Your task to perform on an android device: change your default location settings in chrome Image 0: 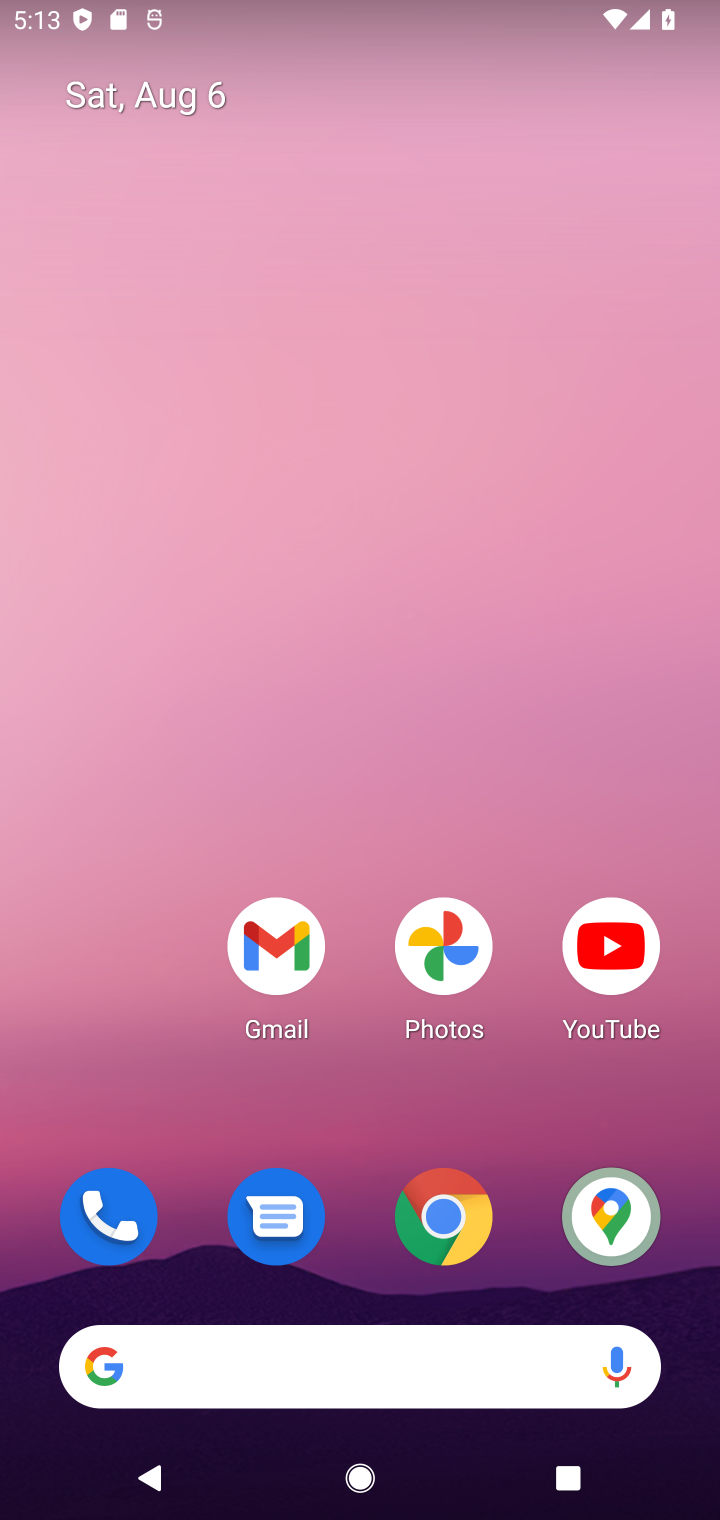
Step 0: drag from (524, 997) to (337, 437)
Your task to perform on an android device: change your default location settings in chrome Image 1: 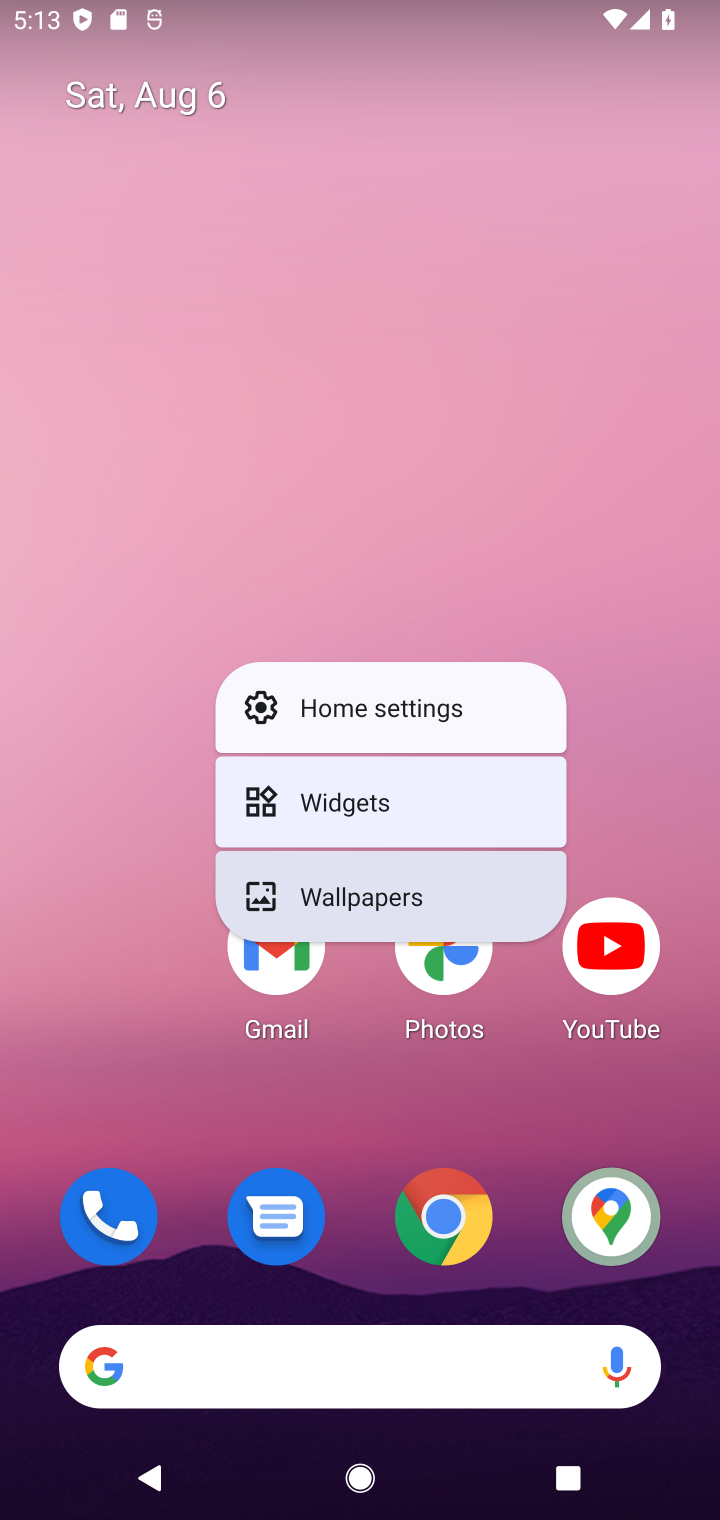
Step 1: click (288, 407)
Your task to perform on an android device: change your default location settings in chrome Image 2: 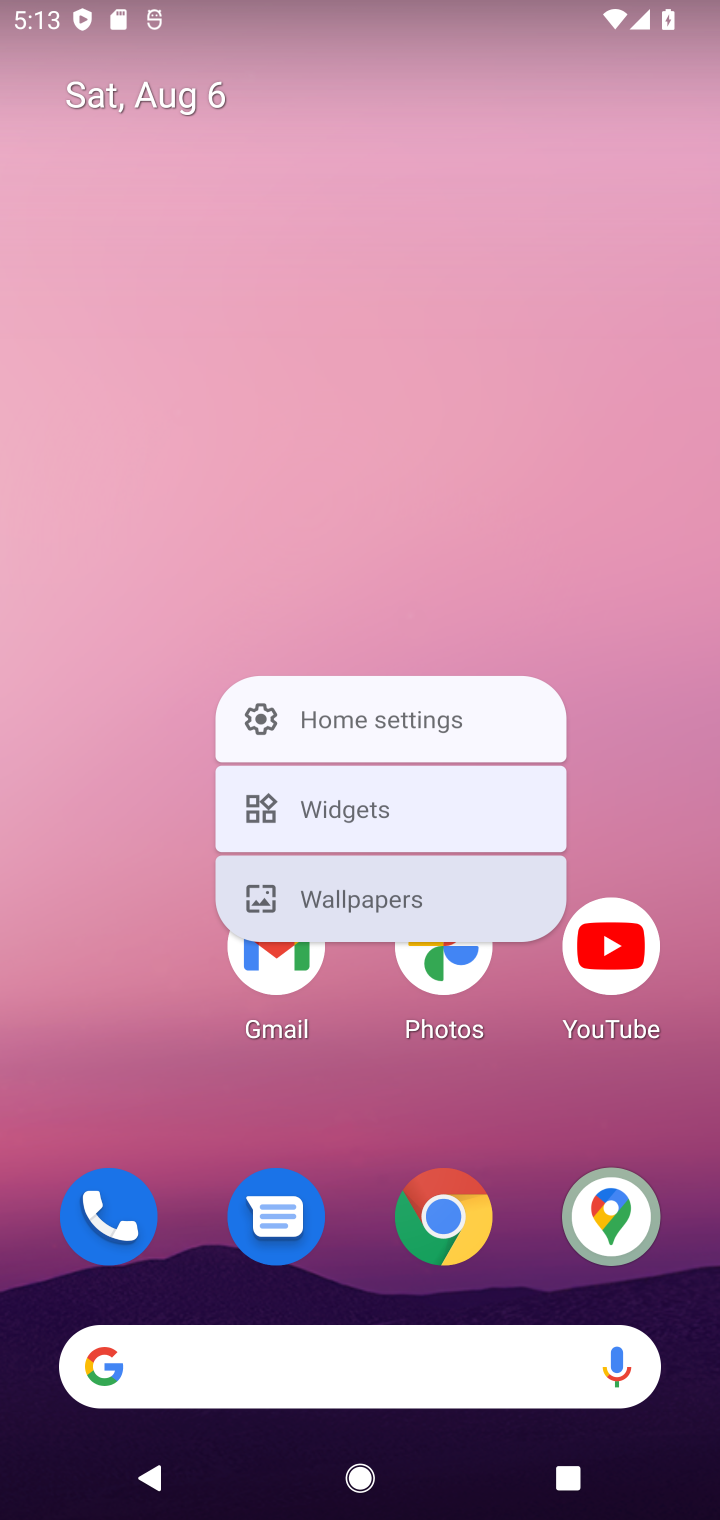
Step 2: click (286, 399)
Your task to perform on an android device: change your default location settings in chrome Image 3: 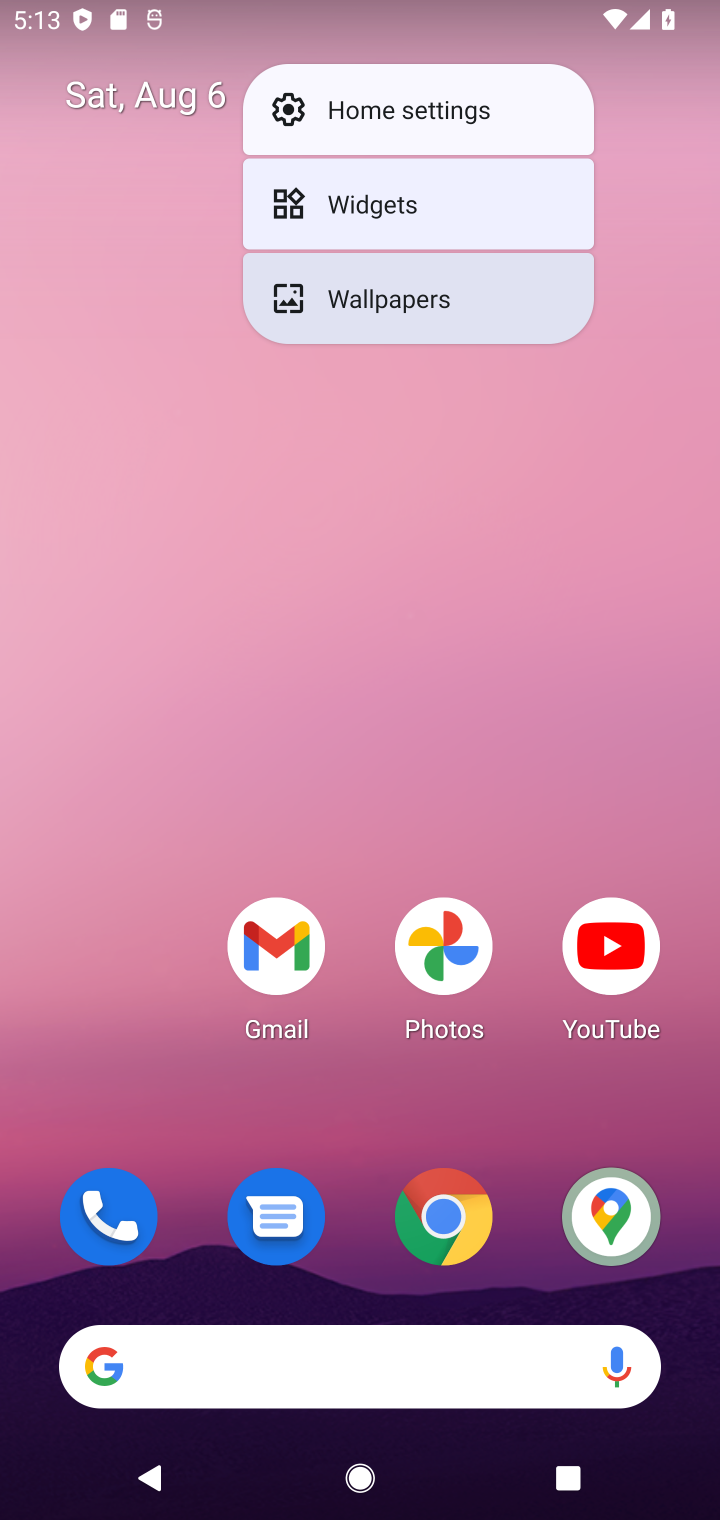
Step 3: click (187, 1036)
Your task to perform on an android device: change your default location settings in chrome Image 4: 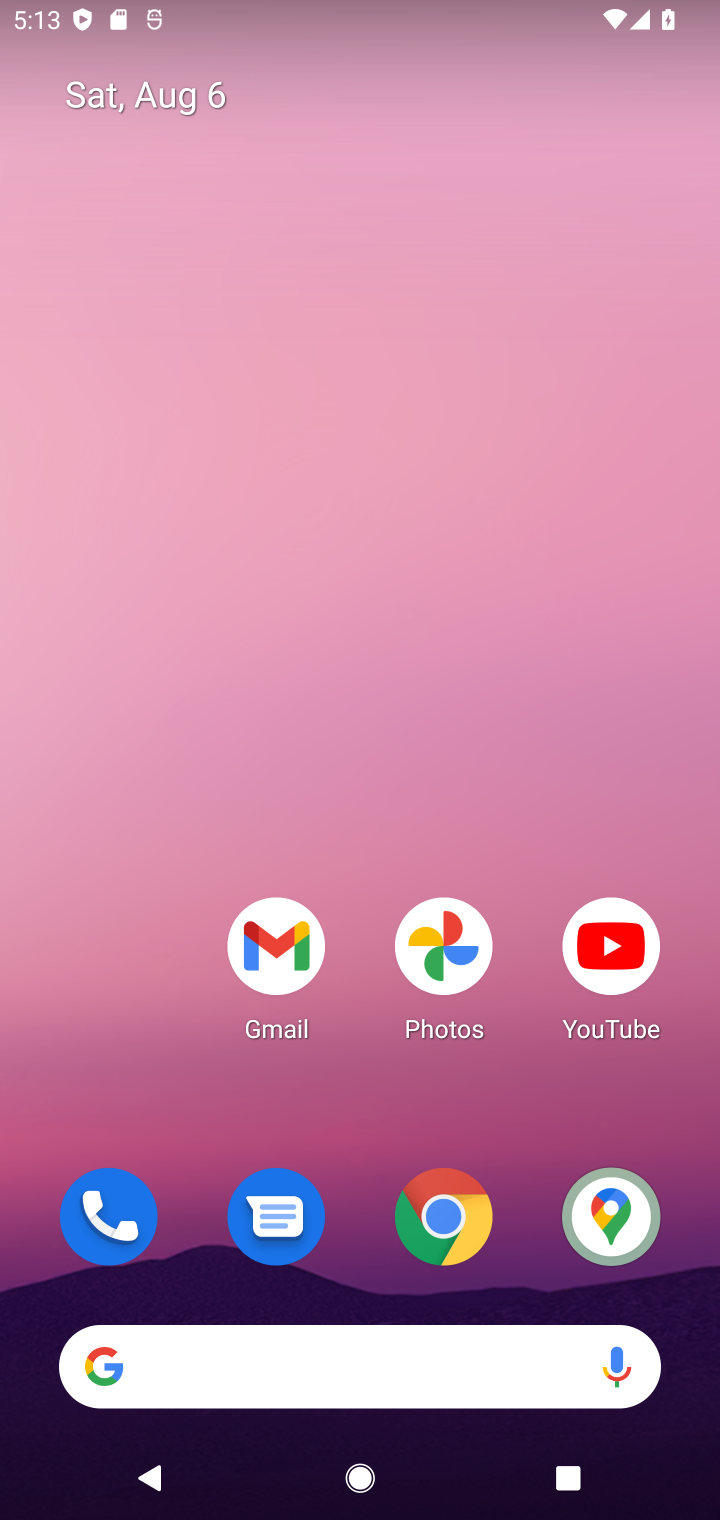
Step 4: drag from (147, 661) to (171, 44)
Your task to perform on an android device: change your default location settings in chrome Image 5: 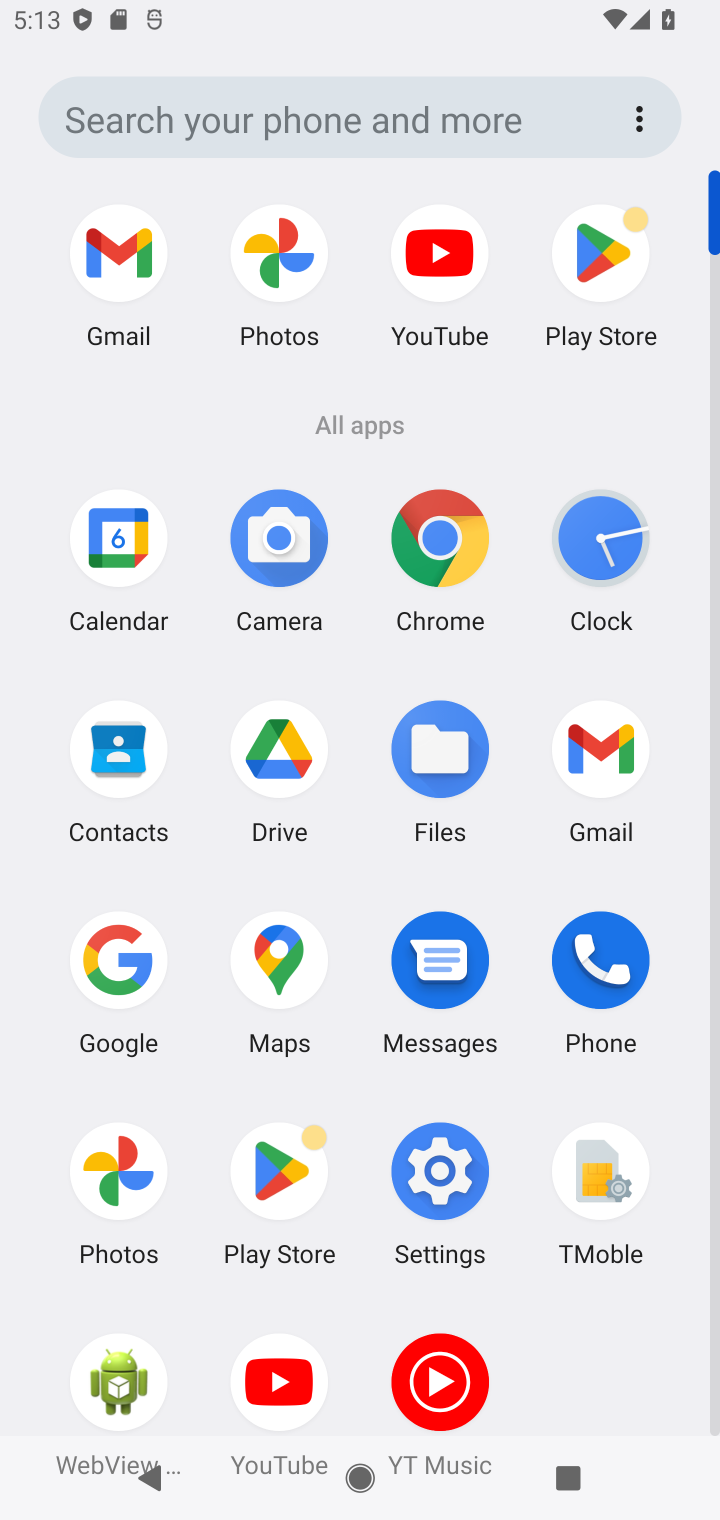
Step 5: click (440, 540)
Your task to perform on an android device: change your default location settings in chrome Image 6: 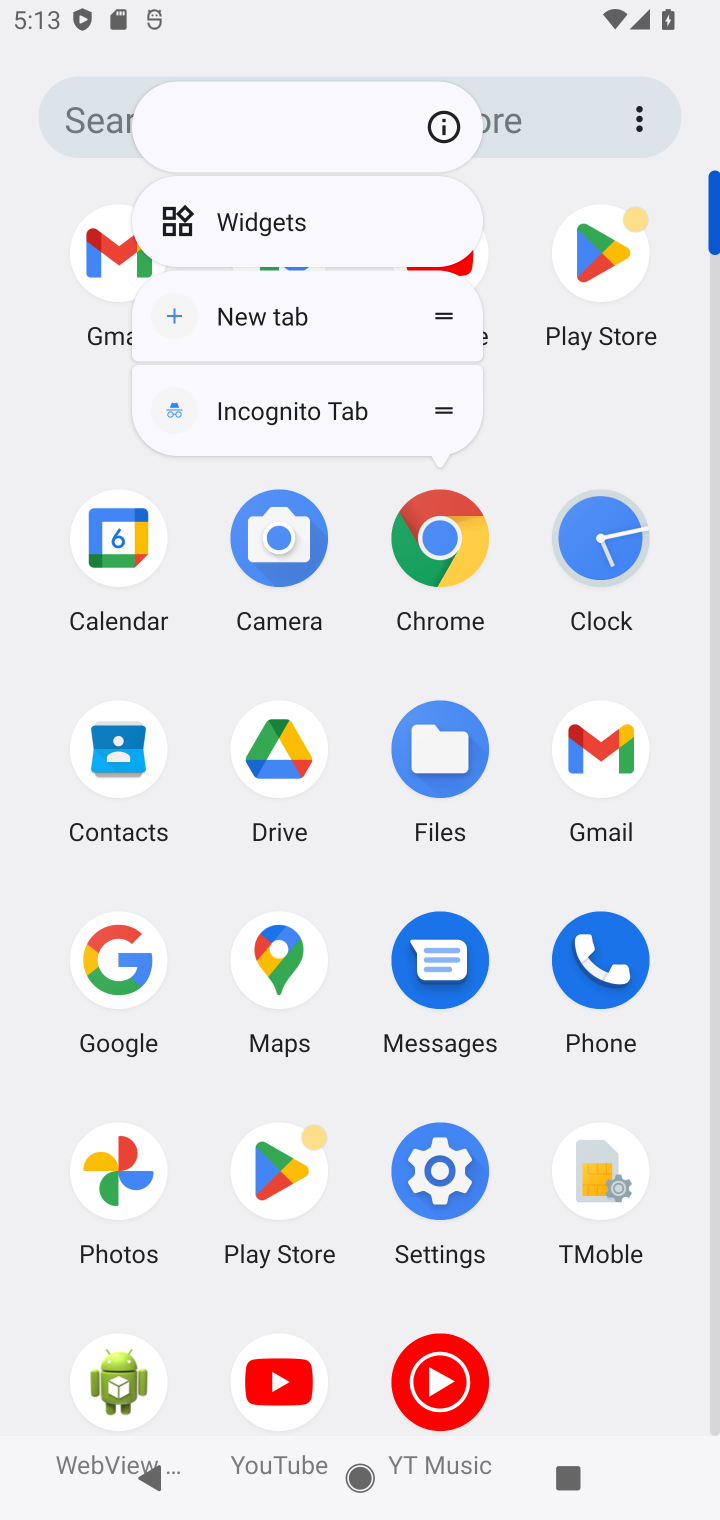
Step 6: click (440, 540)
Your task to perform on an android device: change your default location settings in chrome Image 7: 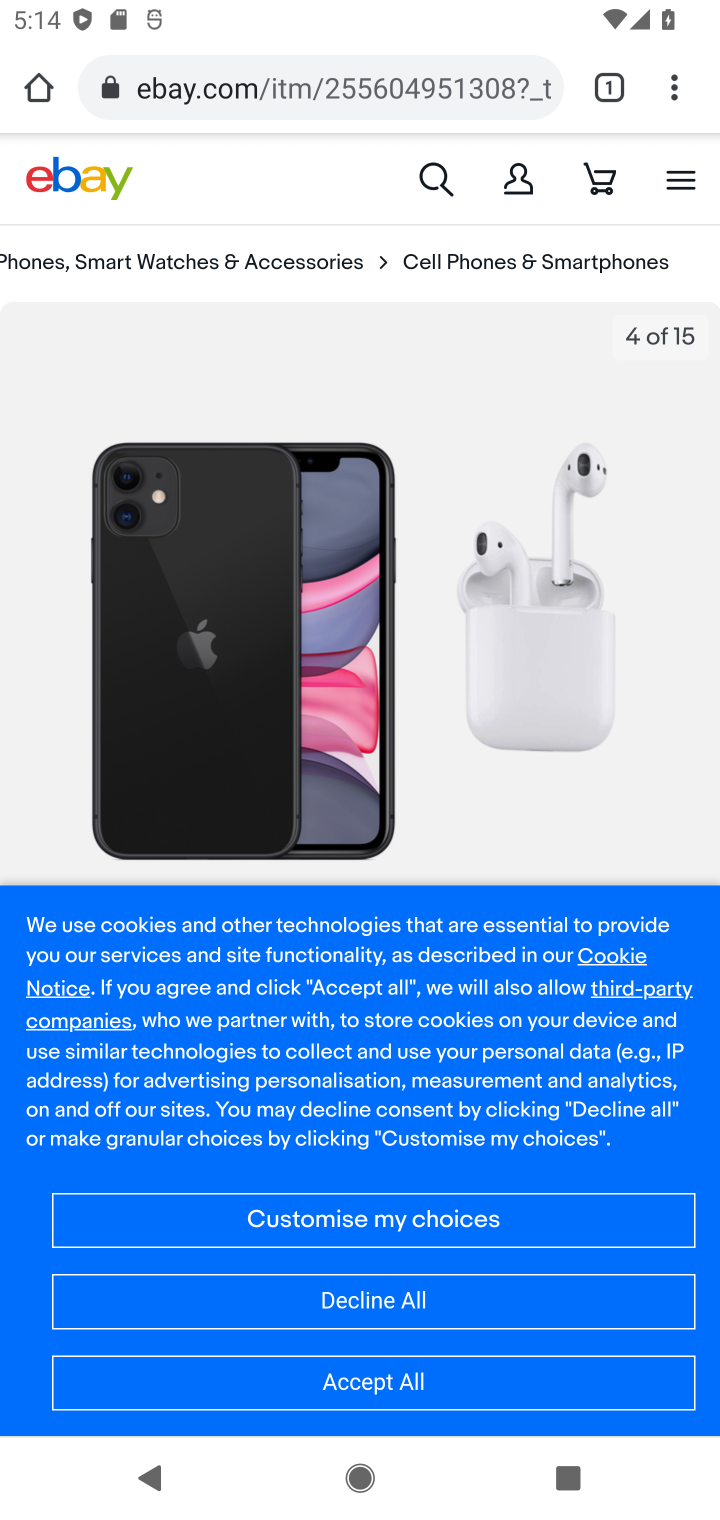
Step 7: drag from (666, 86) to (493, 1056)
Your task to perform on an android device: change your default location settings in chrome Image 8: 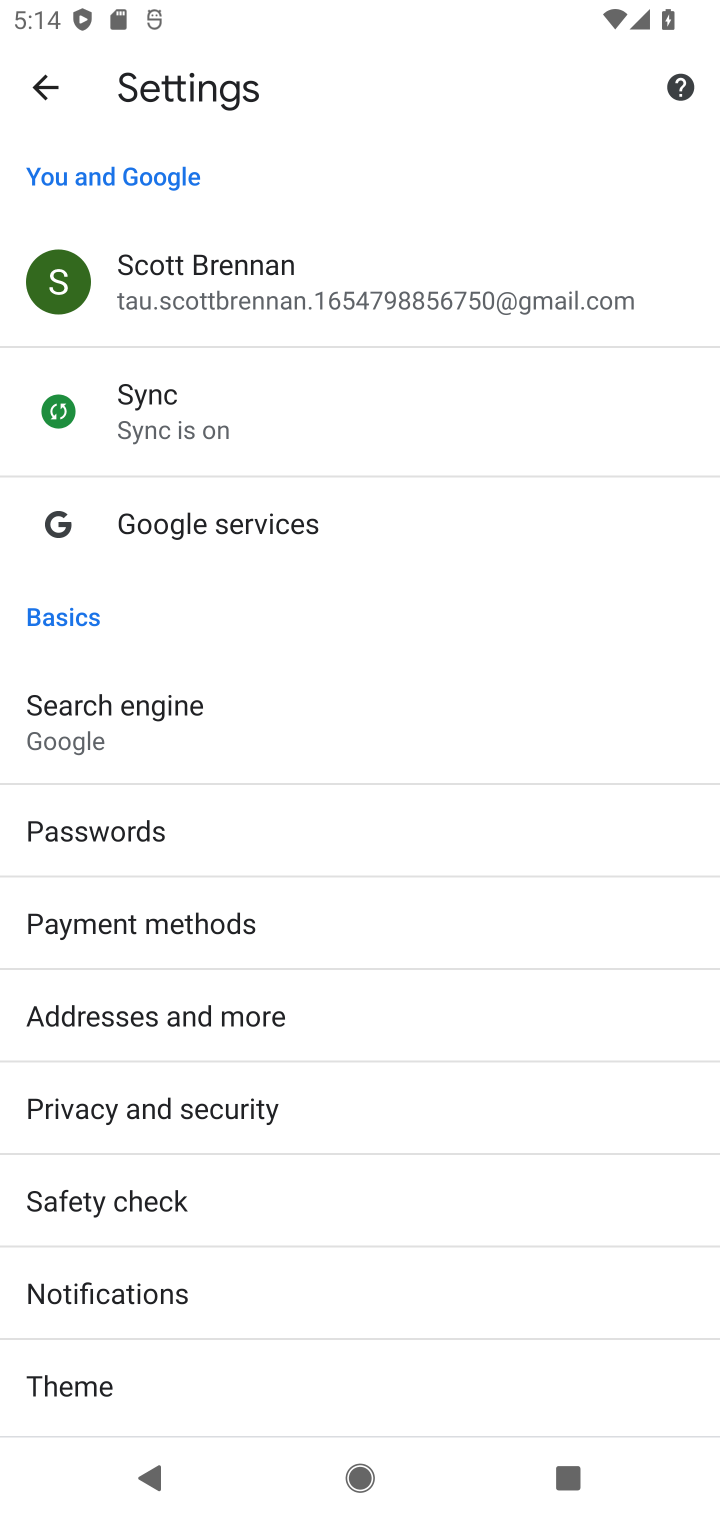
Step 8: drag from (352, 1316) to (382, 269)
Your task to perform on an android device: change your default location settings in chrome Image 9: 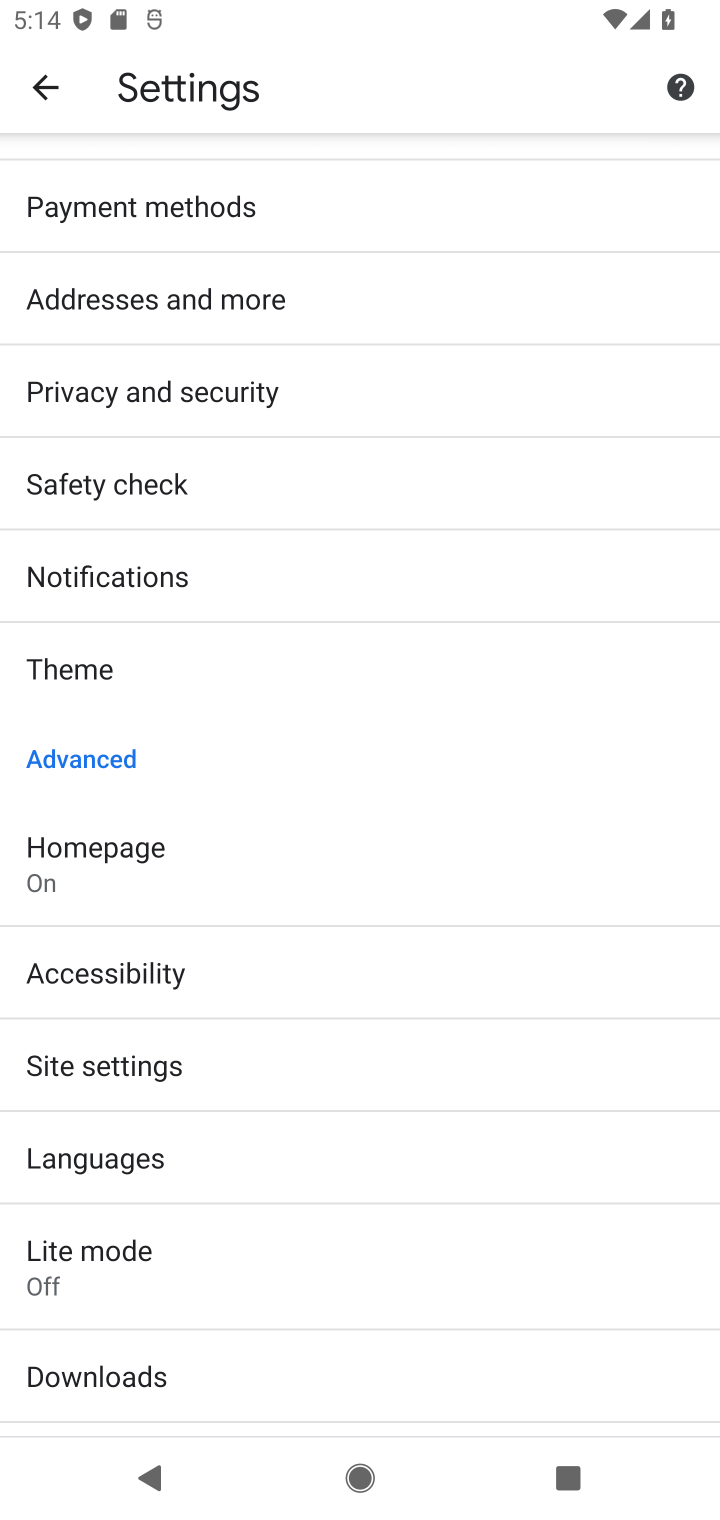
Step 9: click (124, 1087)
Your task to perform on an android device: change your default location settings in chrome Image 10: 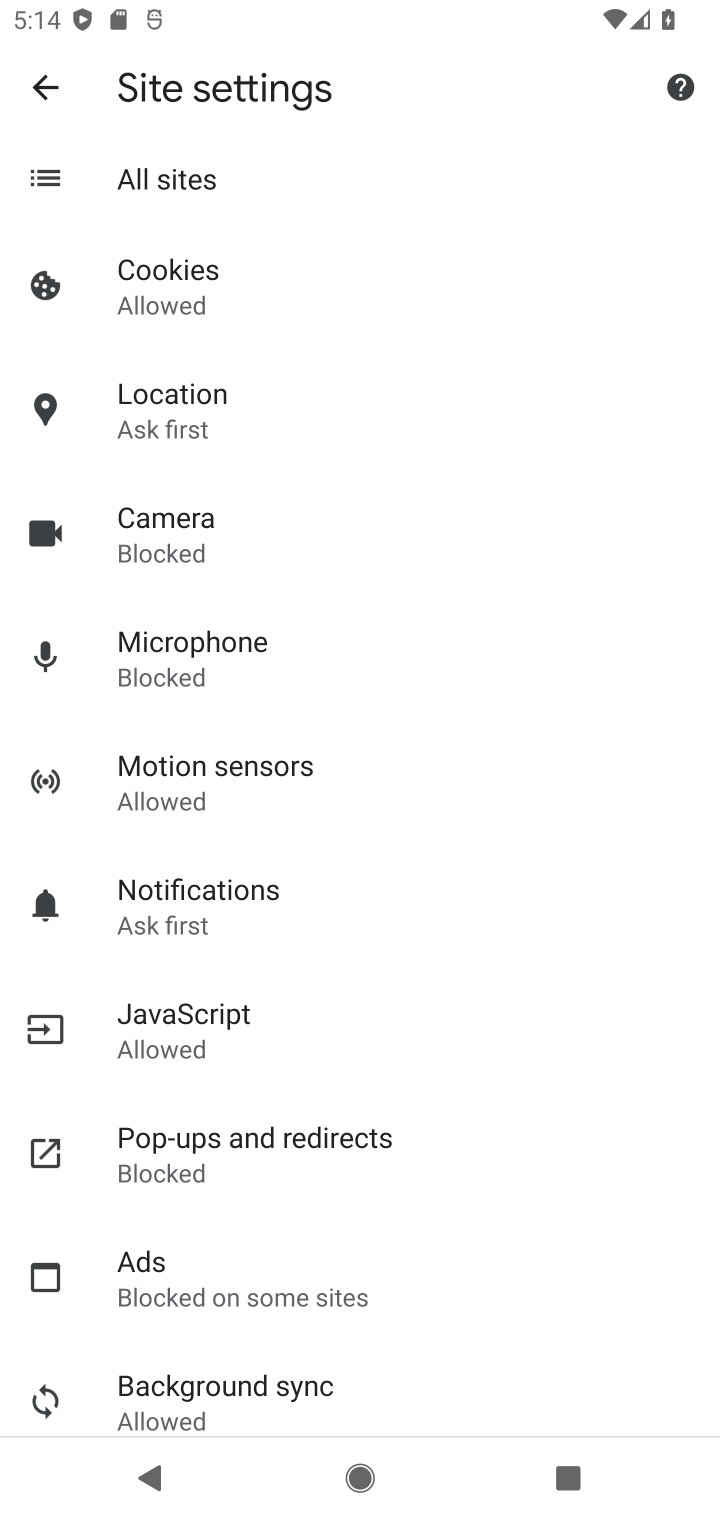
Step 10: drag from (252, 1244) to (466, 1294)
Your task to perform on an android device: change your default location settings in chrome Image 11: 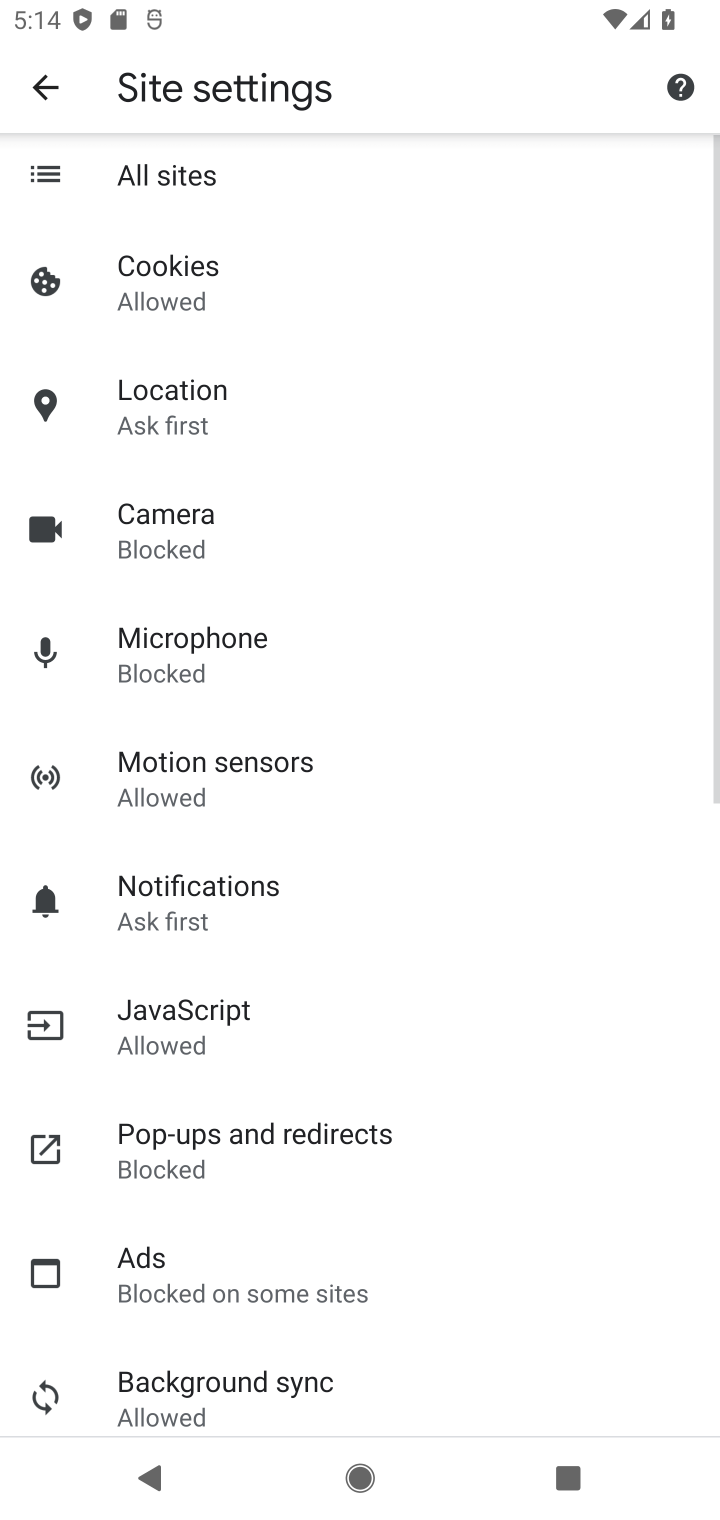
Step 11: click (181, 416)
Your task to perform on an android device: change your default location settings in chrome Image 12: 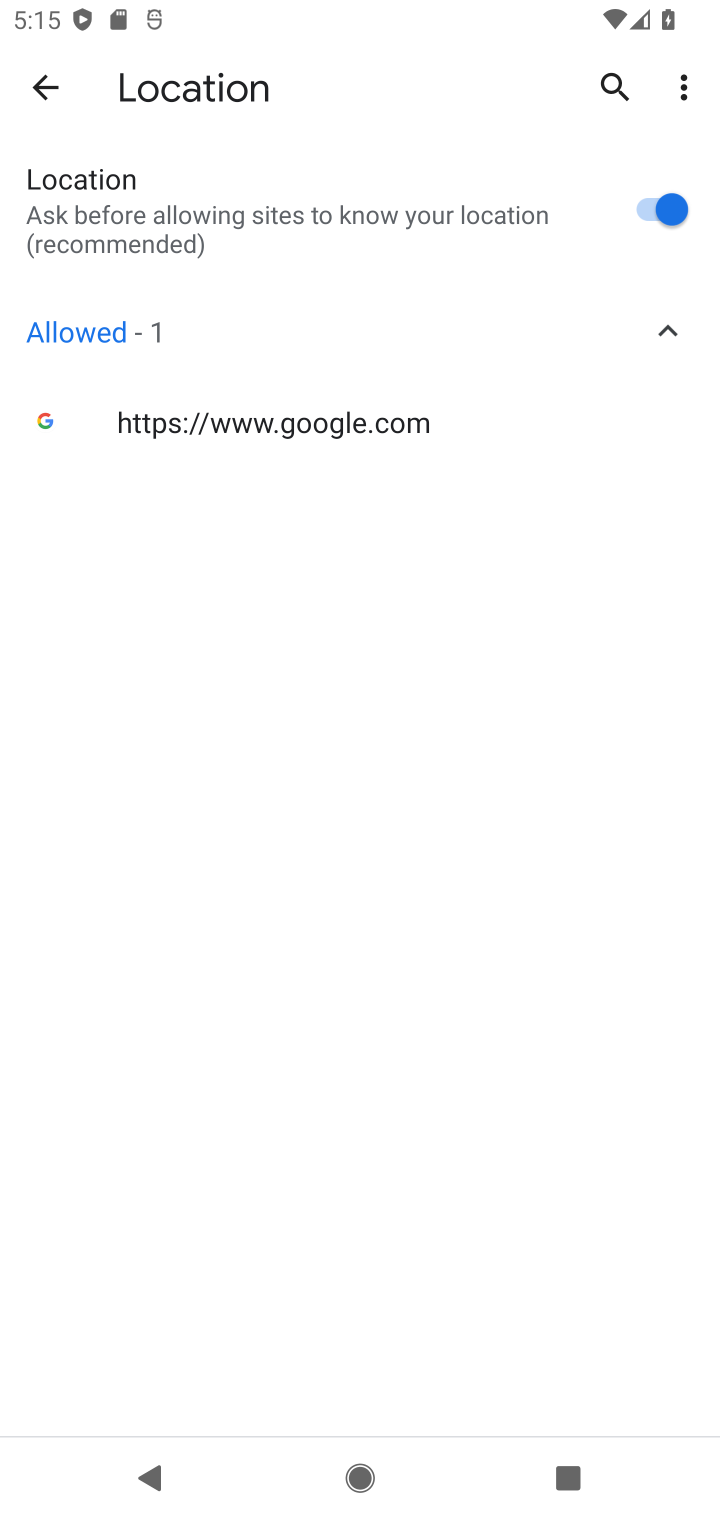
Step 12: click (663, 227)
Your task to perform on an android device: change your default location settings in chrome Image 13: 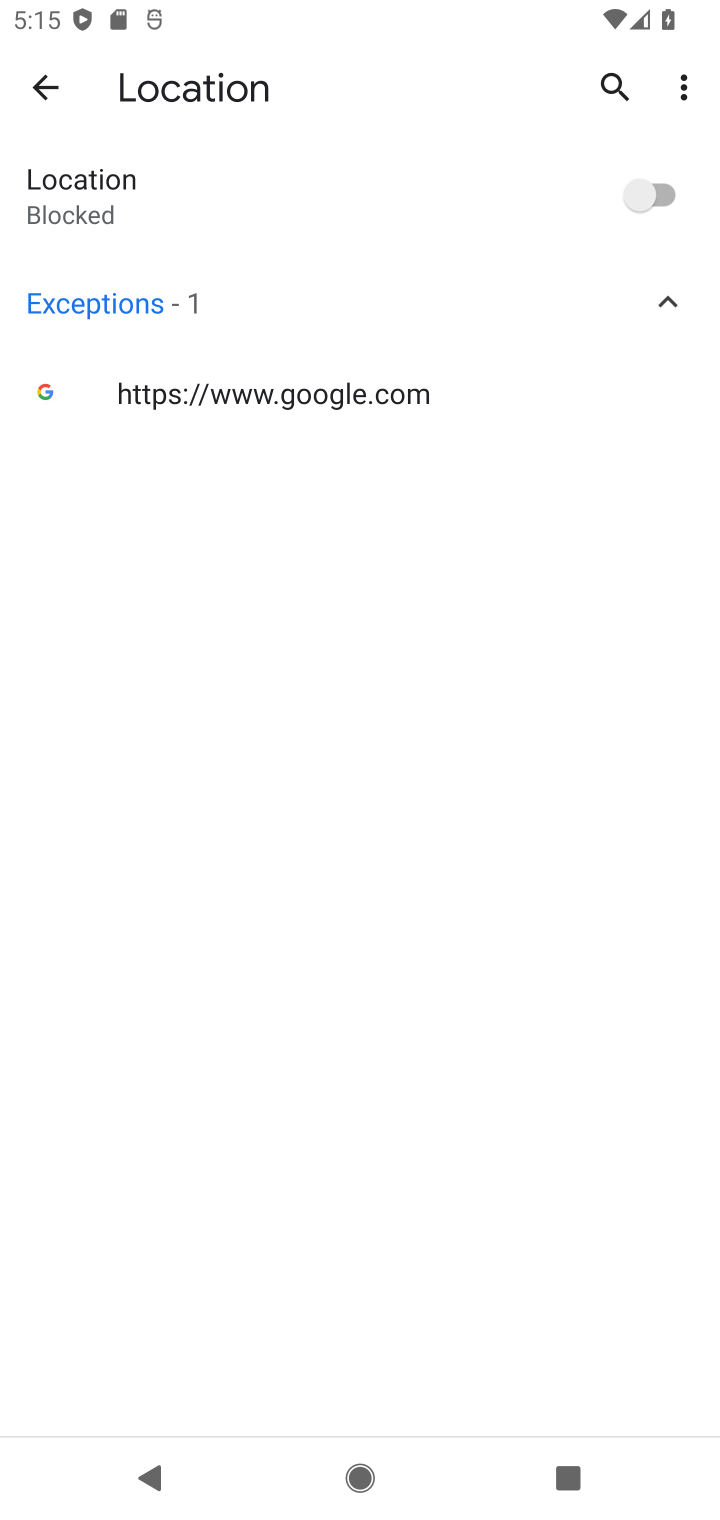
Step 13: task complete